Your task to perform on an android device: Turn off the flashlight Image 0: 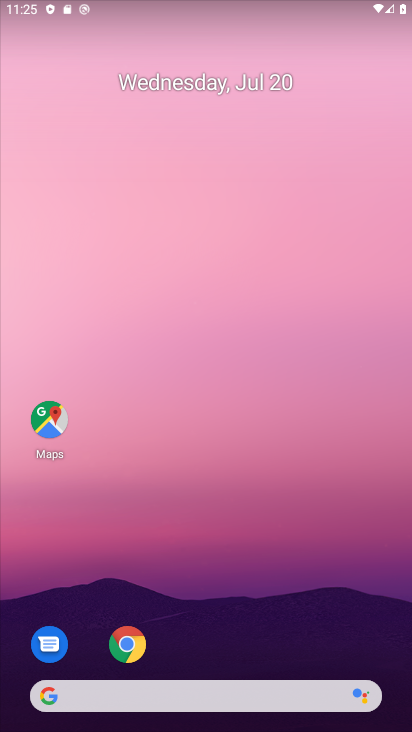
Step 0: drag from (196, 5) to (19, 714)
Your task to perform on an android device: Turn off the flashlight Image 1: 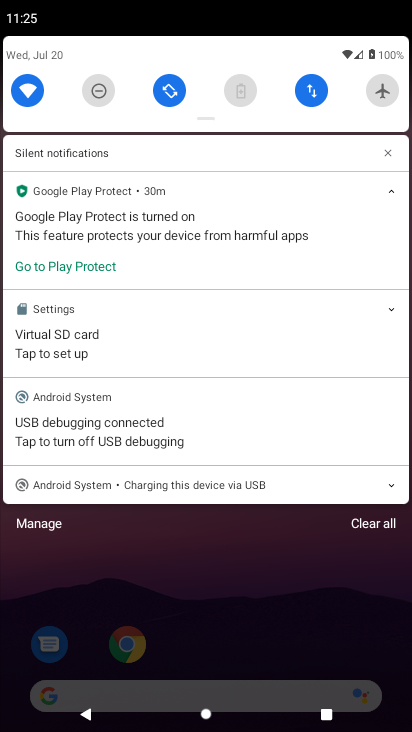
Step 1: task complete